Your task to perform on an android device: Open calendar and show me the fourth week of next month Image 0: 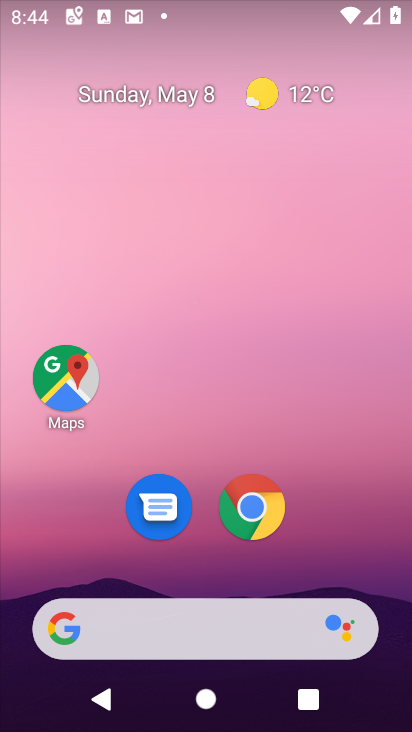
Step 0: drag from (135, 330) to (132, 29)
Your task to perform on an android device: Open calendar and show me the fourth week of next month Image 1: 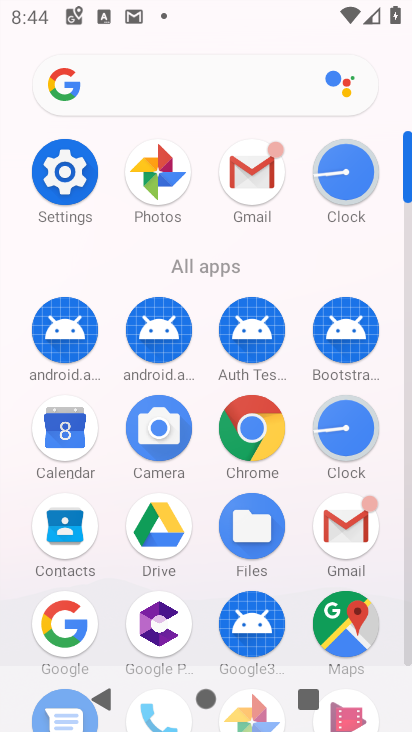
Step 1: click (64, 432)
Your task to perform on an android device: Open calendar and show me the fourth week of next month Image 2: 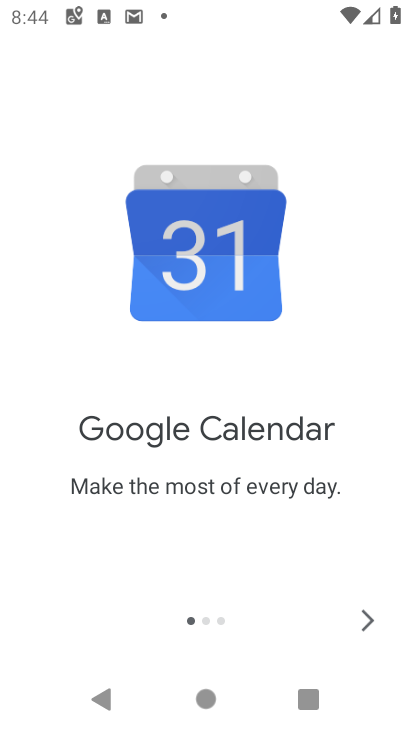
Step 2: click (370, 623)
Your task to perform on an android device: Open calendar and show me the fourth week of next month Image 3: 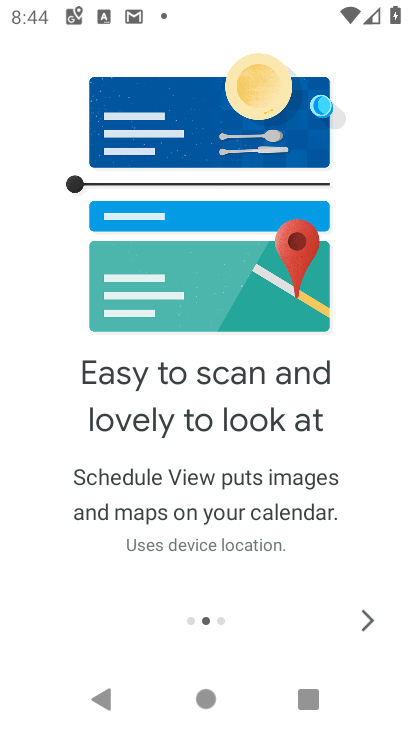
Step 3: click (370, 623)
Your task to perform on an android device: Open calendar and show me the fourth week of next month Image 4: 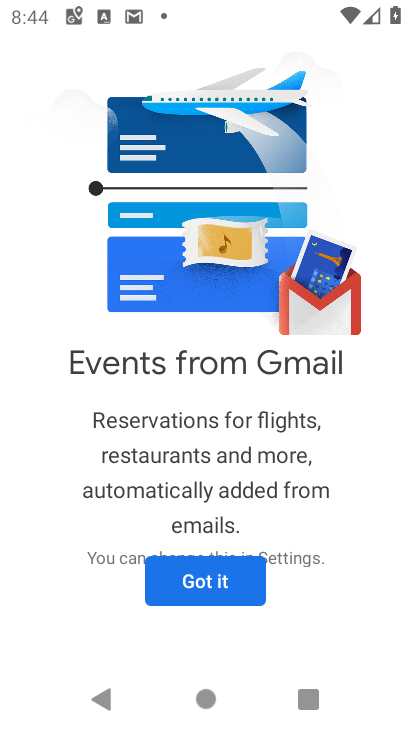
Step 4: click (197, 593)
Your task to perform on an android device: Open calendar and show me the fourth week of next month Image 5: 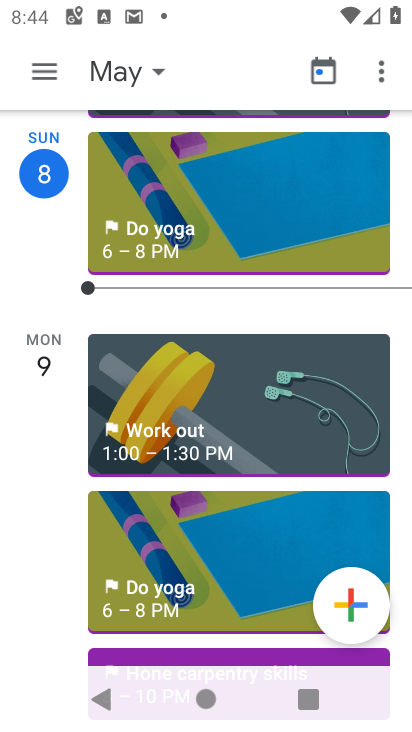
Step 5: click (109, 81)
Your task to perform on an android device: Open calendar and show me the fourth week of next month Image 6: 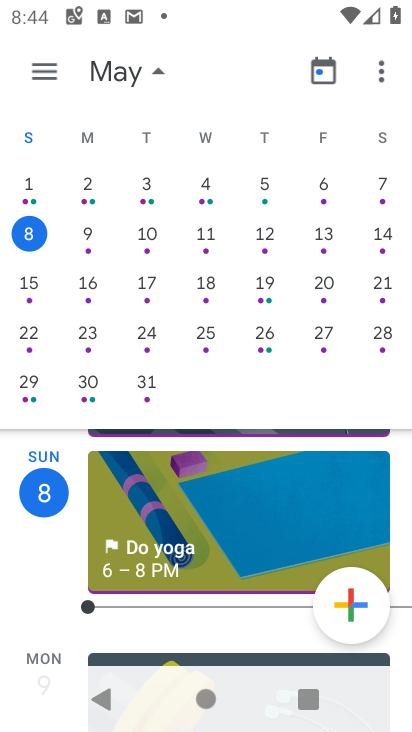
Step 6: drag from (314, 235) to (6, 332)
Your task to perform on an android device: Open calendar and show me the fourth week of next month Image 7: 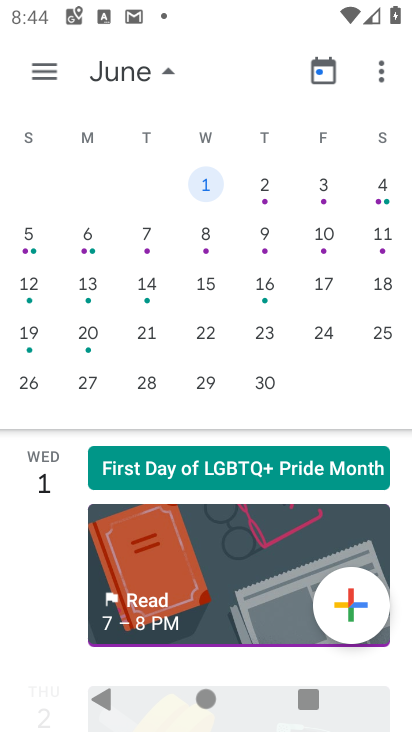
Step 7: click (25, 343)
Your task to perform on an android device: Open calendar and show me the fourth week of next month Image 8: 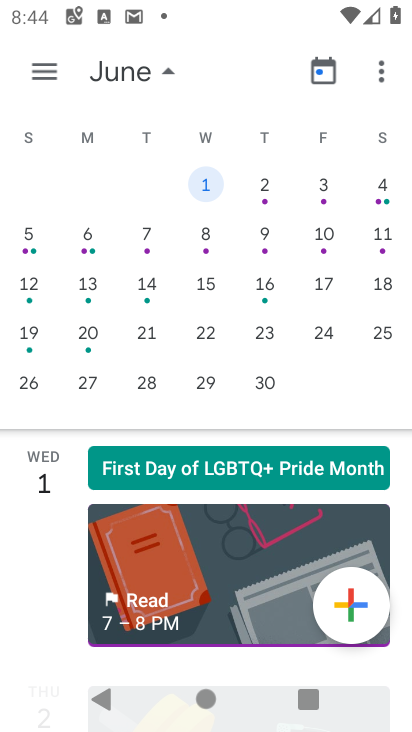
Step 8: click (29, 333)
Your task to perform on an android device: Open calendar and show me the fourth week of next month Image 9: 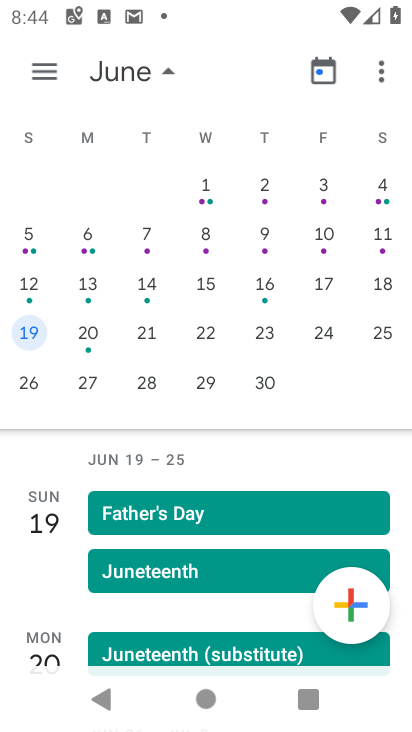
Step 9: task complete